Your task to perform on an android device: open app "Speedtest by Ookla" (install if not already installed) and go to login screen Image 0: 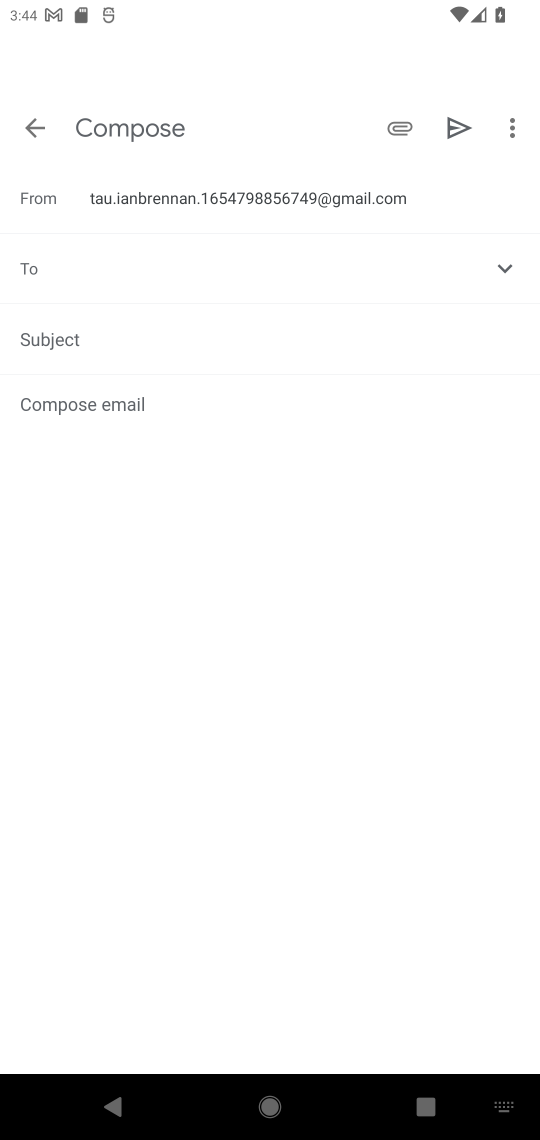
Step 0: press home button
Your task to perform on an android device: open app "Speedtest by Ookla" (install if not already installed) and go to login screen Image 1: 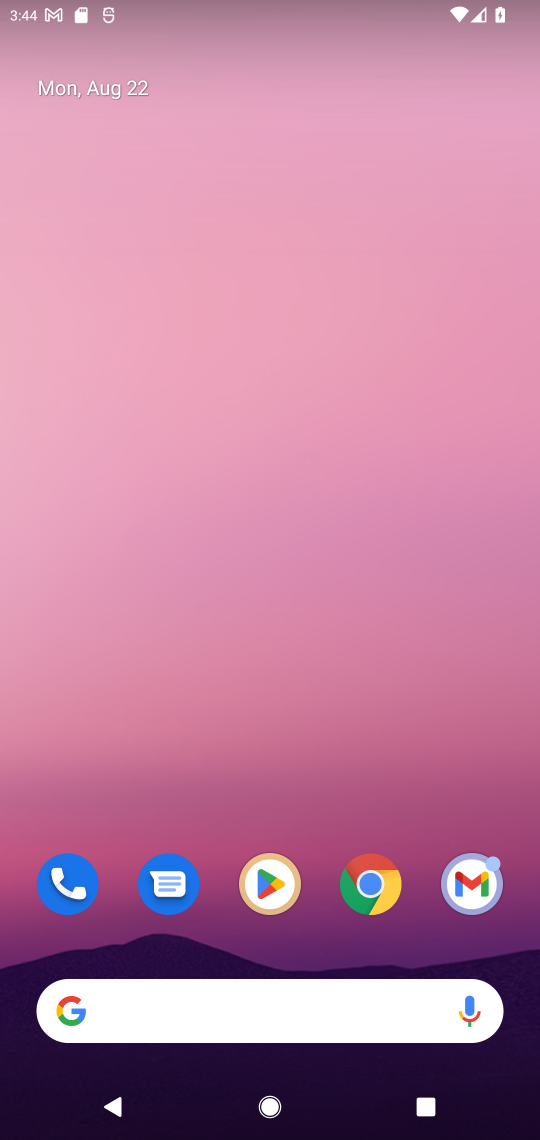
Step 1: click (268, 878)
Your task to perform on an android device: open app "Speedtest by Ookla" (install if not already installed) and go to login screen Image 2: 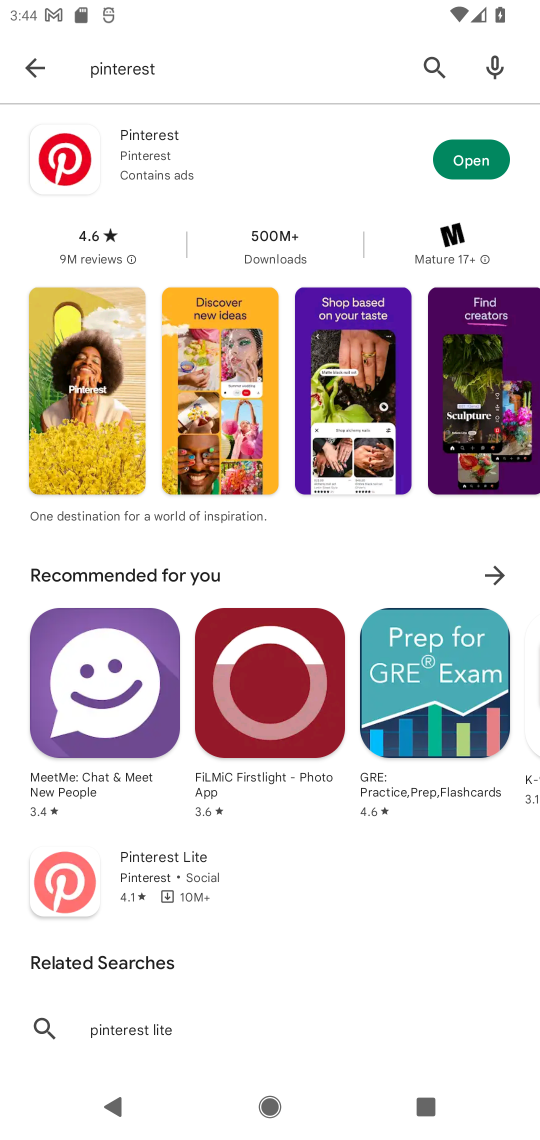
Step 2: click (186, 58)
Your task to perform on an android device: open app "Speedtest by Ookla" (install if not already installed) and go to login screen Image 3: 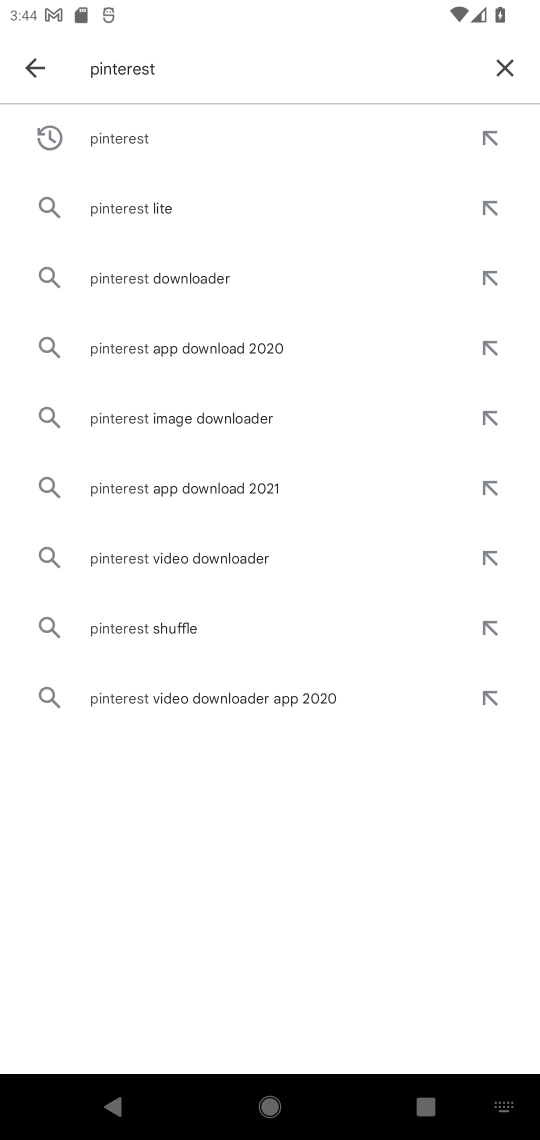
Step 3: click (508, 73)
Your task to perform on an android device: open app "Speedtest by Ookla" (install if not already installed) and go to login screen Image 4: 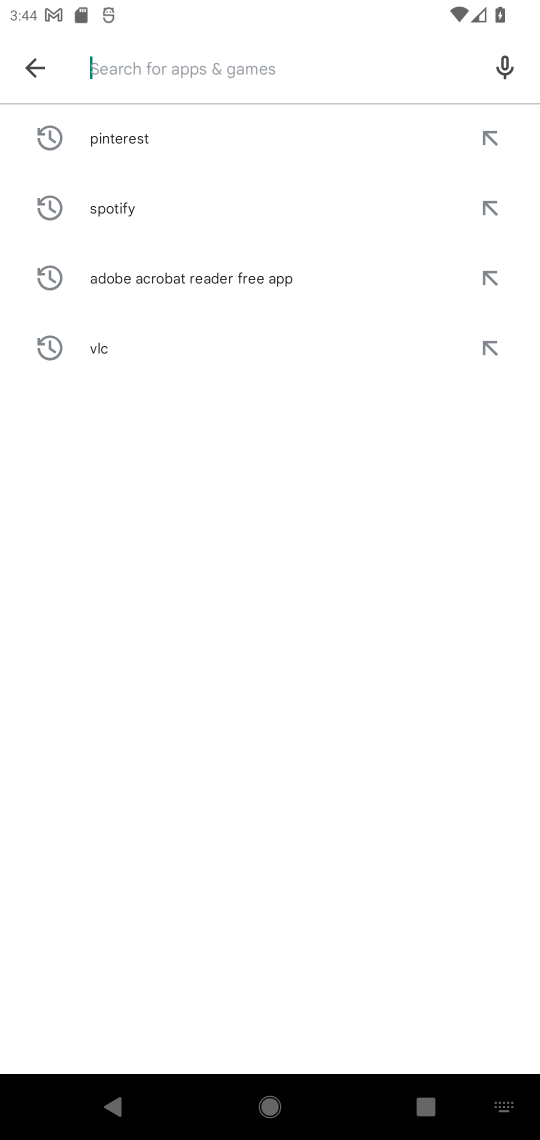
Step 4: type "speedtest by Ookla"
Your task to perform on an android device: open app "Speedtest by Ookla" (install if not already installed) and go to login screen Image 5: 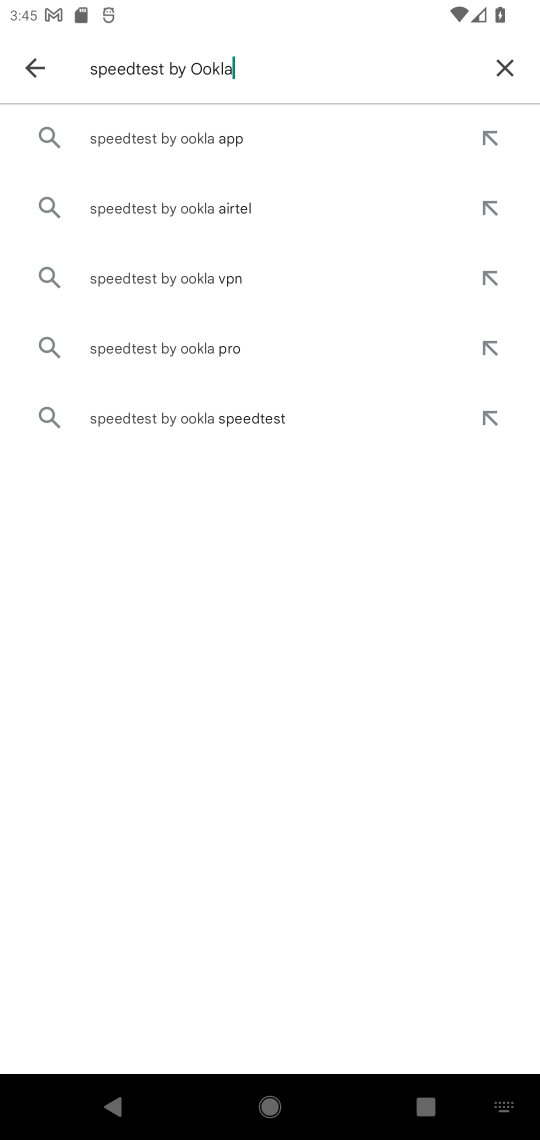
Step 5: click (171, 138)
Your task to perform on an android device: open app "Speedtest by Ookla" (install if not already installed) and go to login screen Image 6: 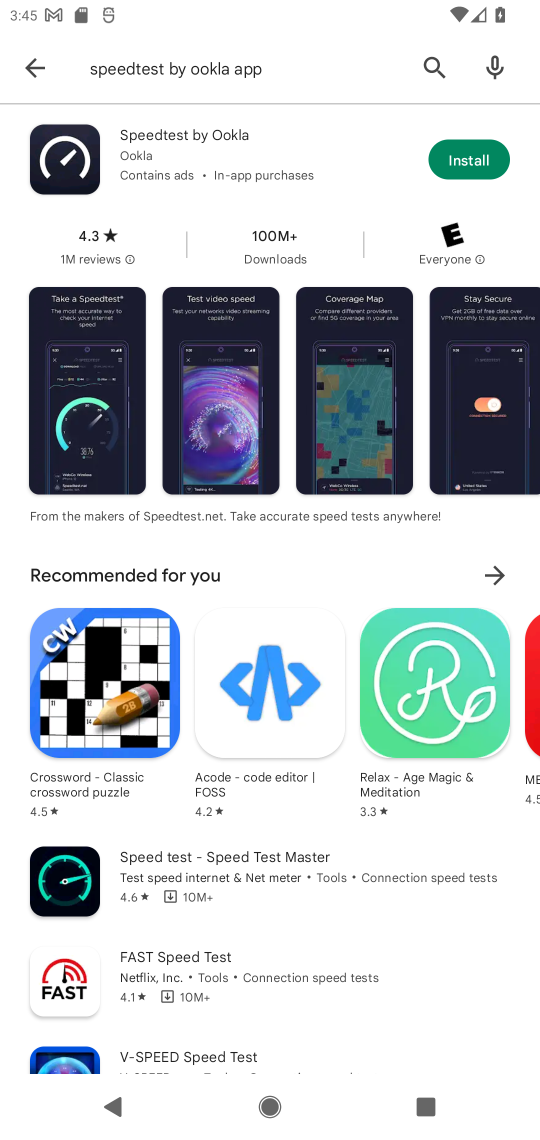
Step 6: click (482, 160)
Your task to perform on an android device: open app "Speedtest by Ookla" (install if not already installed) and go to login screen Image 7: 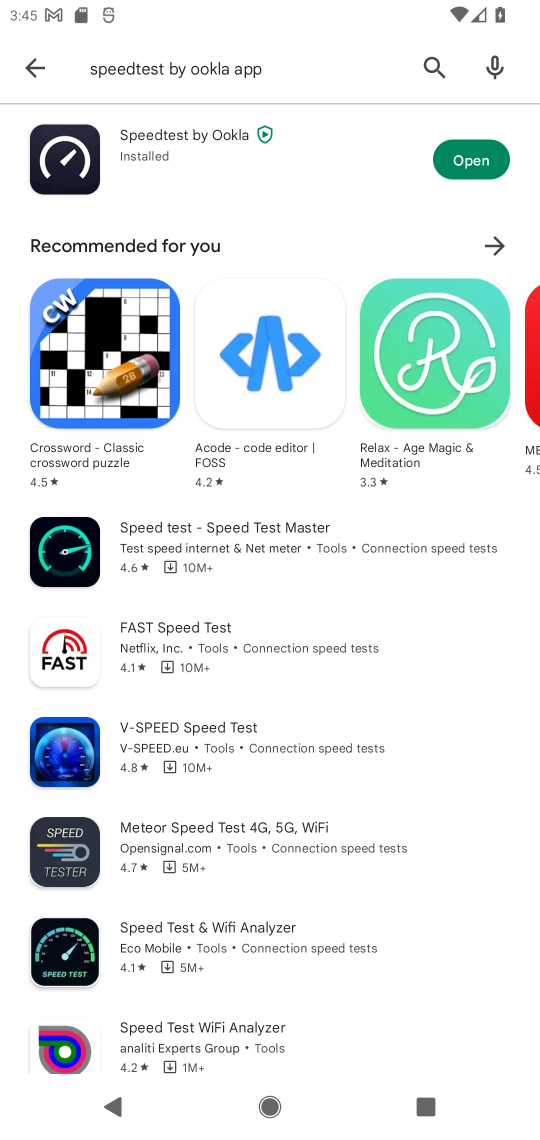
Step 7: click (463, 174)
Your task to perform on an android device: open app "Speedtest by Ookla" (install if not already installed) and go to login screen Image 8: 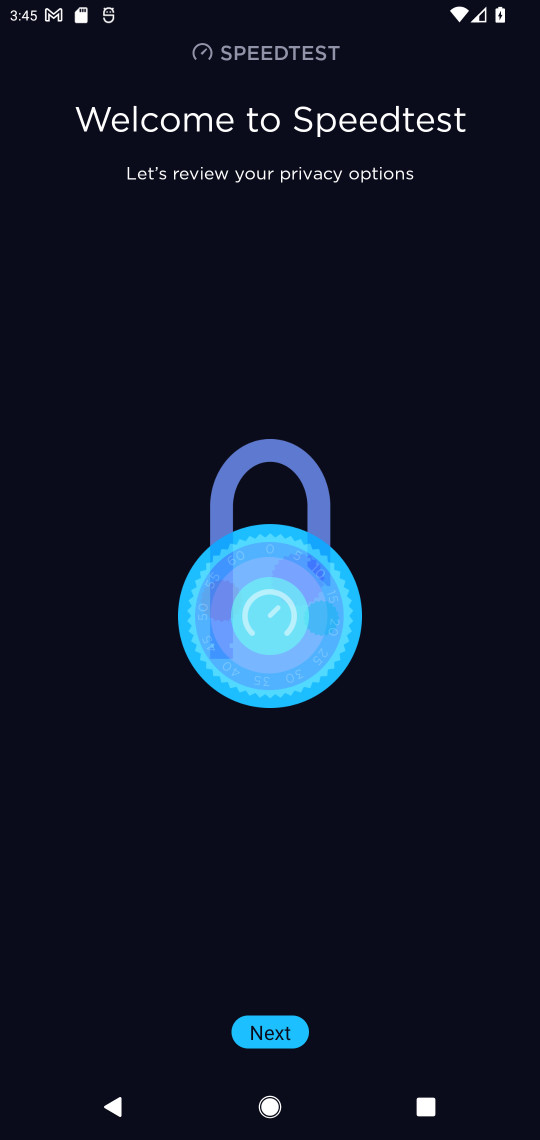
Step 8: click (277, 1038)
Your task to perform on an android device: open app "Speedtest by Ookla" (install if not already installed) and go to login screen Image 9: 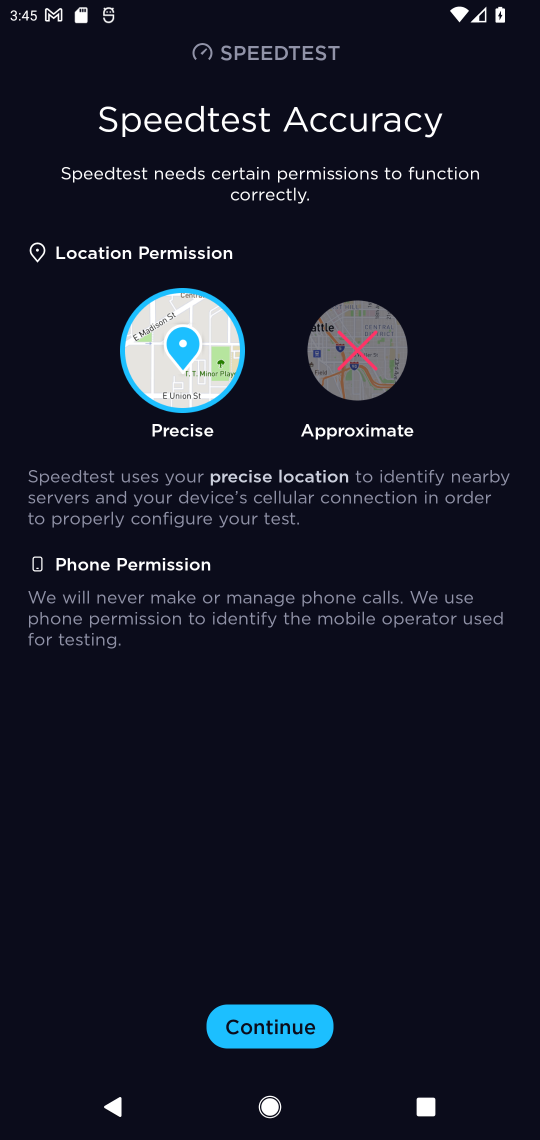
Step 9: click (290, 1015)
Your task to perform on an android device: open app "Speedtest by Ookla" (install if not already installed) and go to login screen Image 10: 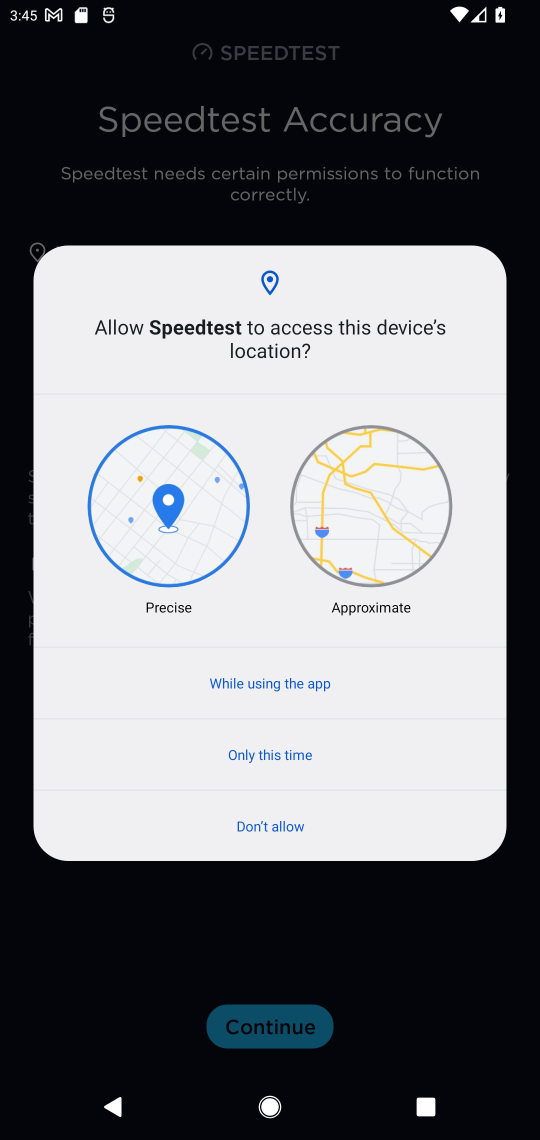
Step 10: click (313, 674)
Your task to perform on an android device: open app "Speedtest by Ookla" (install if not already installed) and go to login screen Image 11: 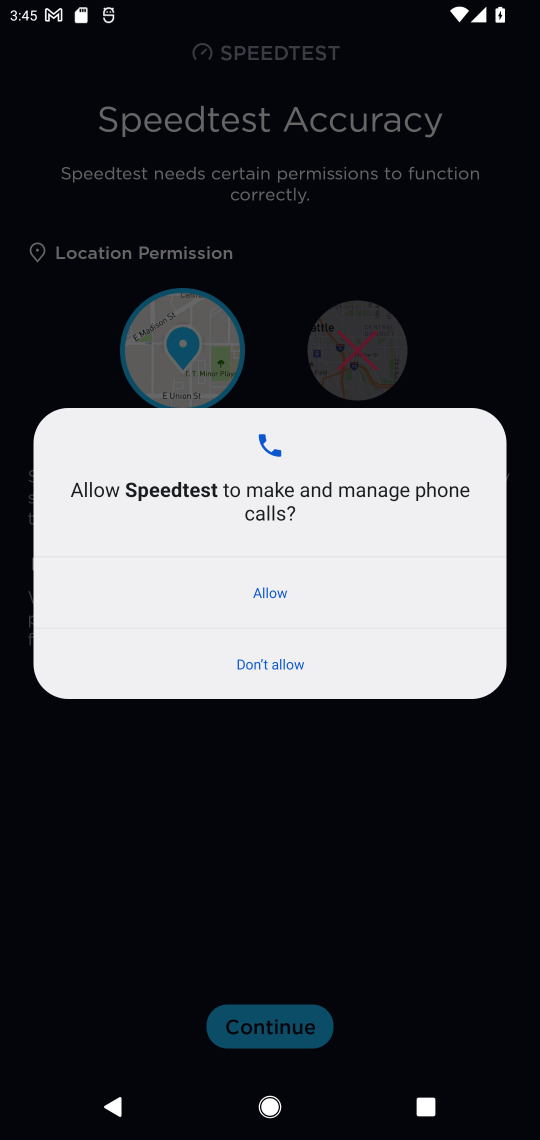
Step 11: click (282, 579)
Your task to perform on an android device: open app "Speedtest by Ookla" (install if not already installed) and go to login screen Image 12: 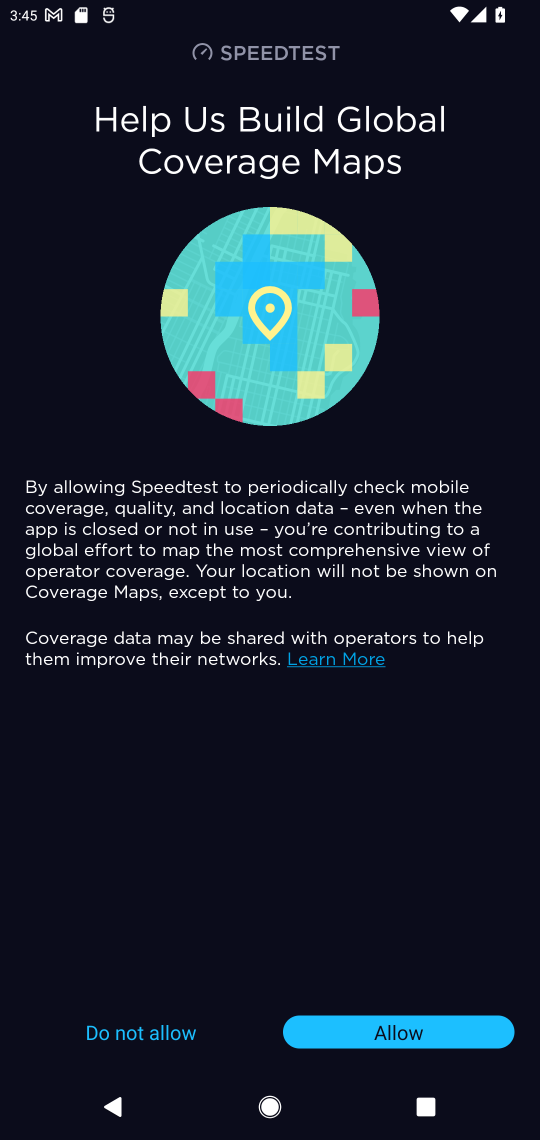
Step 12: click (460, 1034)
Your task to perform on an android device: open app "Speedtest by Ookla" (install if not already installed) and go to login screen Image 13: 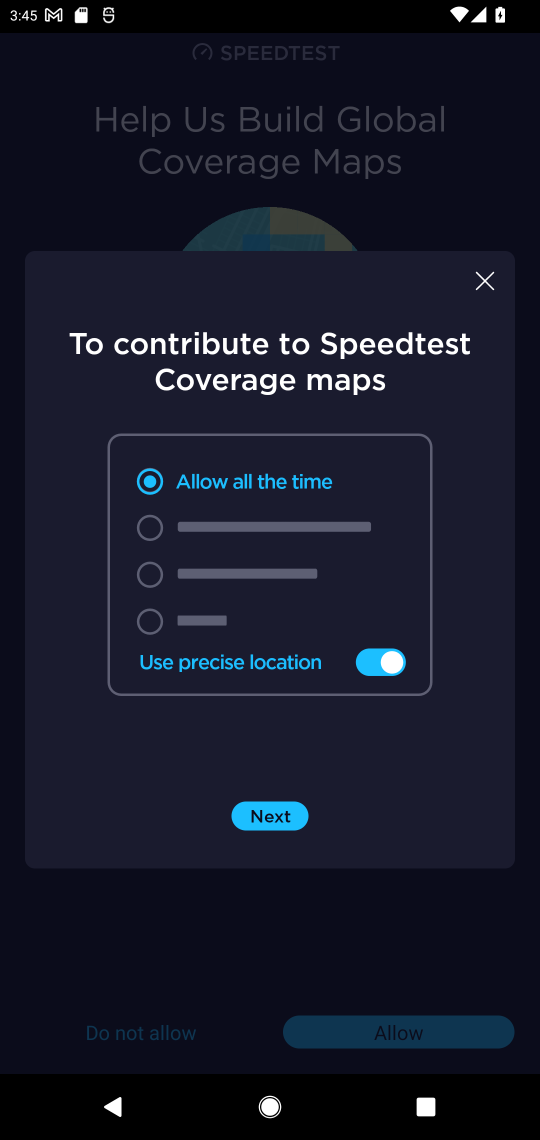
Step 13: click (263, 819)
Your task to perform on an android device: open app "Speedtest by Ookla" (install if not already installed) and go to login screen Image 14: 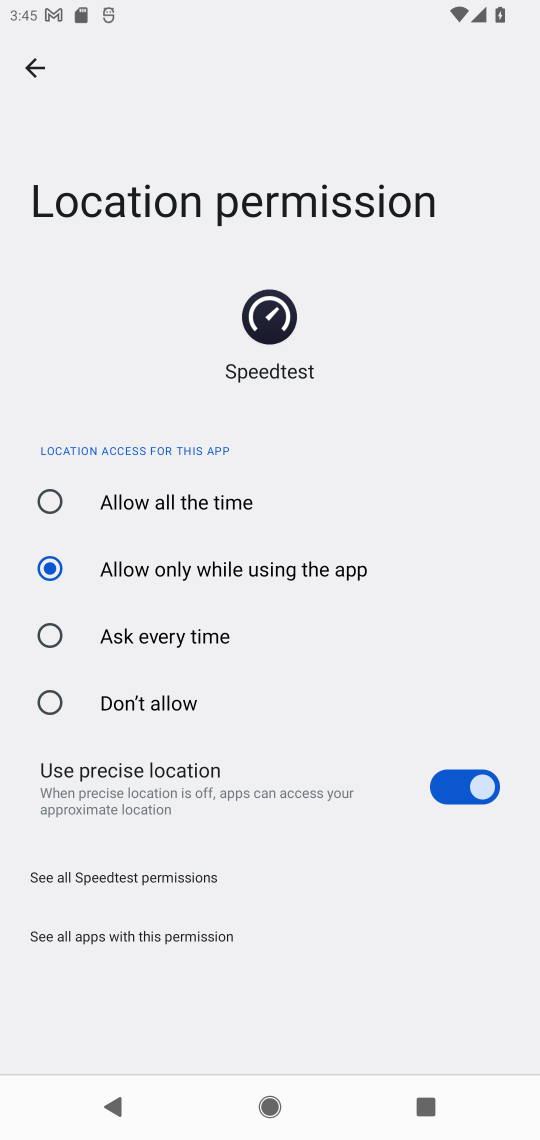
Step 14: click (162, 494)
Your task to perform on an android device: open app "Speedtest by Ookla" (install if not already installed) and go to login screen Image 15: 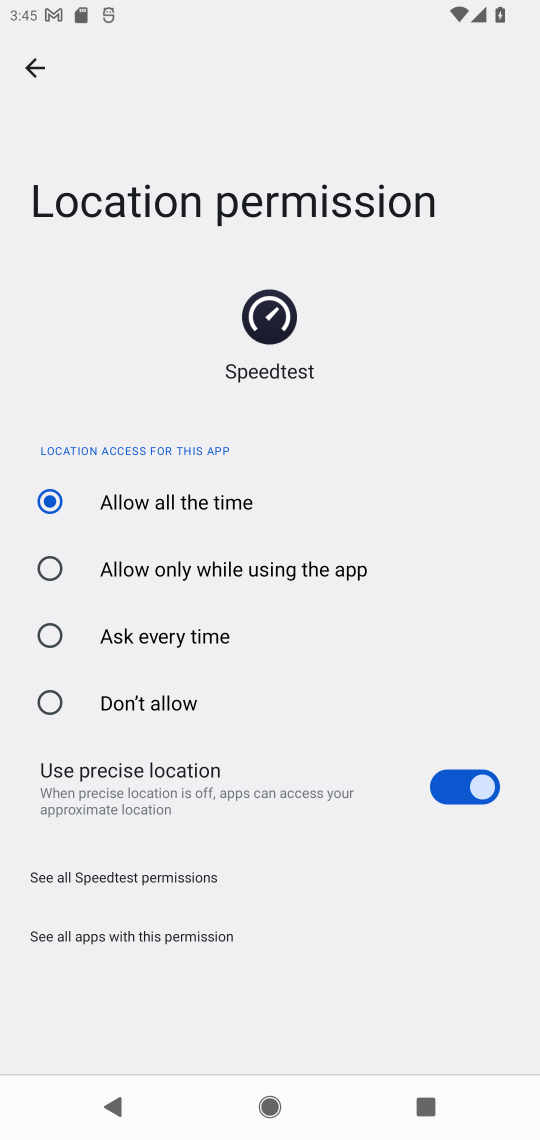
Step 15: click (30, 63)
Your task to perform on an android device: open app "Speedtest by Ookla" (install if not already installed) and go to login screen Image 16: 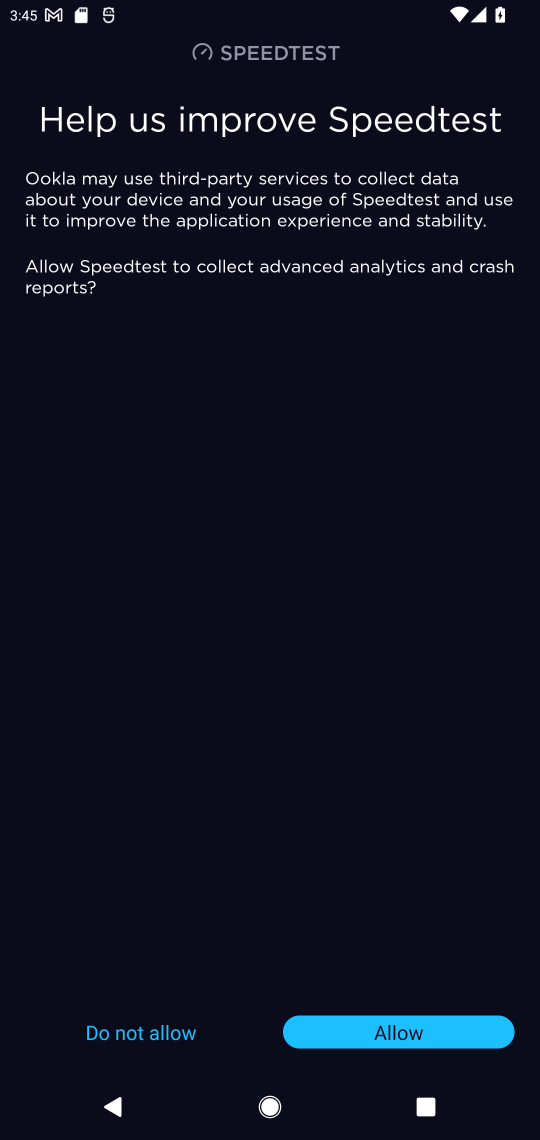
Step 16: click (409, 1015)
Your task to perform on an android device: open app "Speedtest by Ookla" (install if not already installed) and go to login screen Image 17: 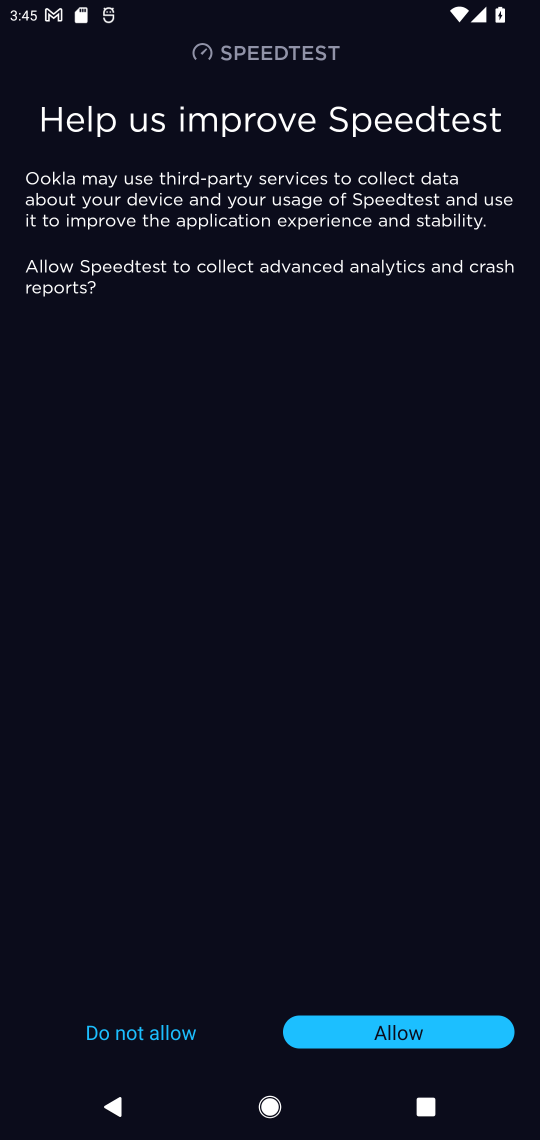
Step 17: click (459, 1026)
Your task to perform on an android device: open app "Speedtest by Ookla" (install if not already installed) and go to login screen Image 18: 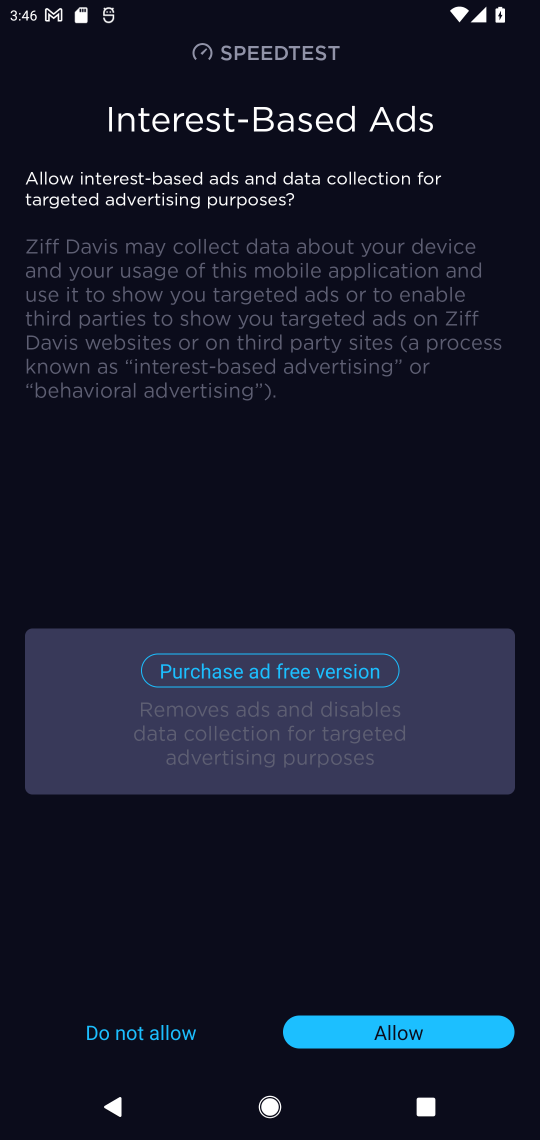
Step 18: click (457, 1024)
Your task to perform on an android device: open app "Speedtest by Ookla" (install if not already installed) and go to login screen Image 19: 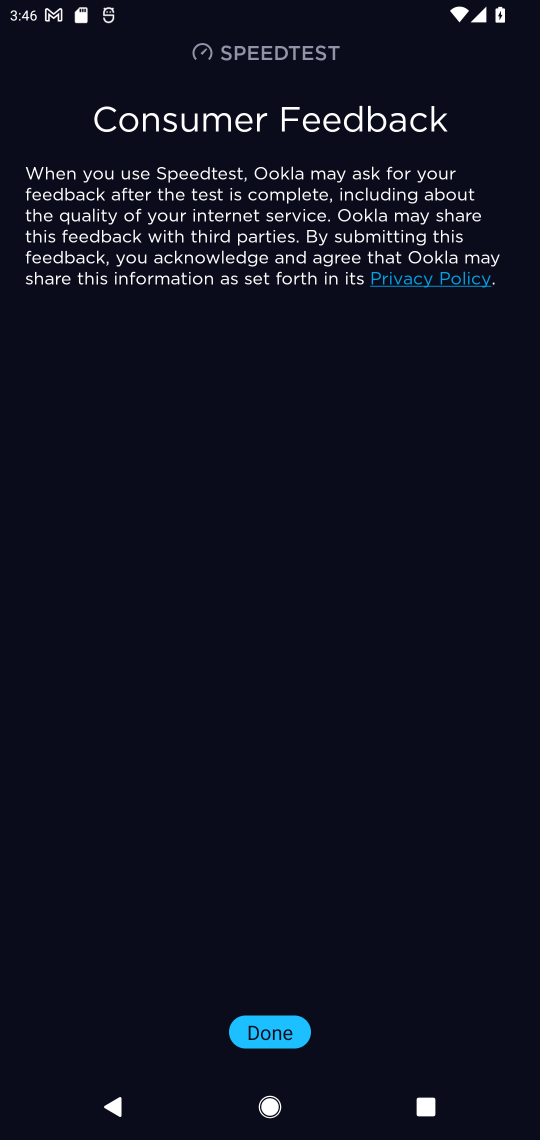
Step 19: click (265, 1031)
Your task to perform on an android device: open app "Speedtest by Ookla" (install if not already installed) and go to login screen Image 20: 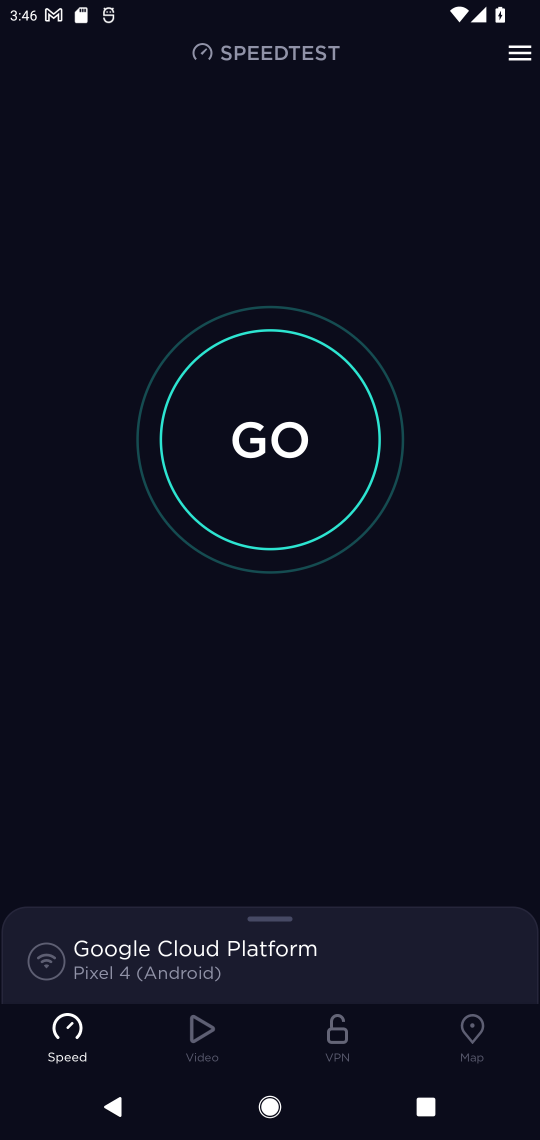
Step 20: click (522, 49)
Your task to perform on an android device: open app "Speedtest by Ookla" (install if not already installed) and go to login screen Image 21: 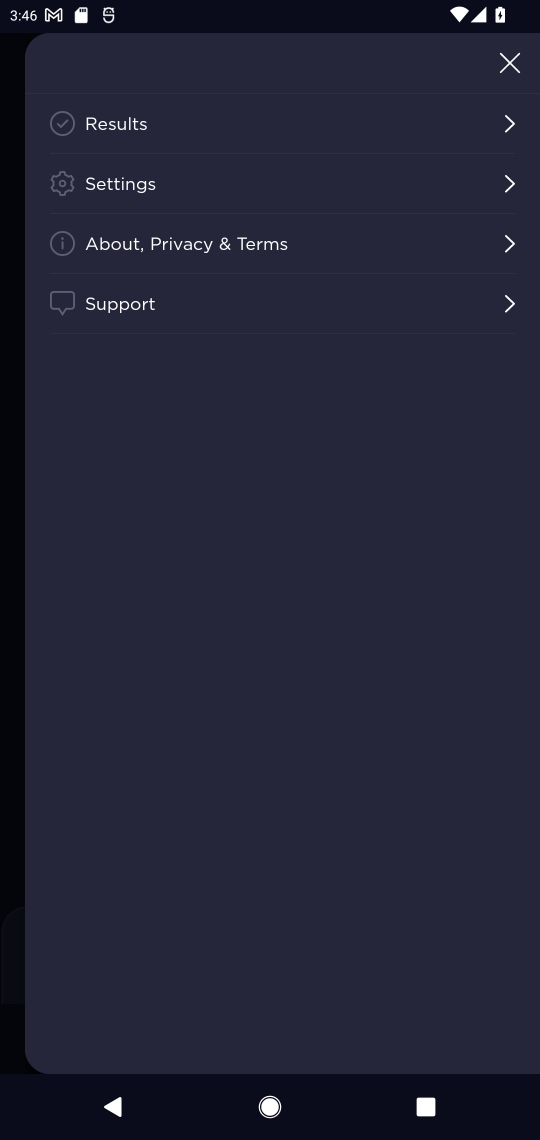
Step 21: click (106, 183)
Your task to perform on an android device: open app "Speedtest by Ookla" (install if not already installed) and go to login screen Image 22: 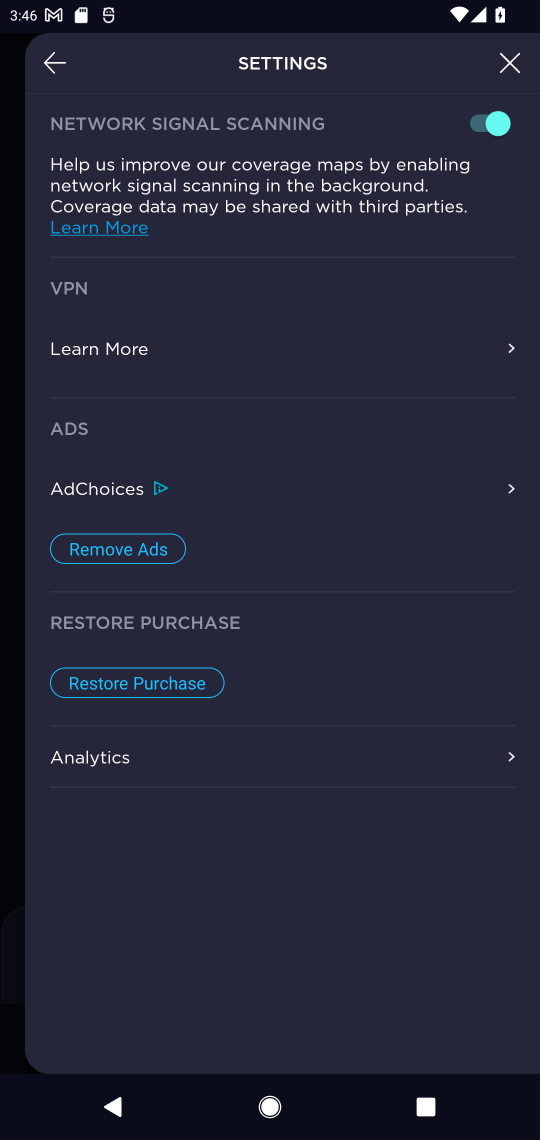
Step 22: task complete